Your task to perform on an android device: Turn off the flashlight Image 0: 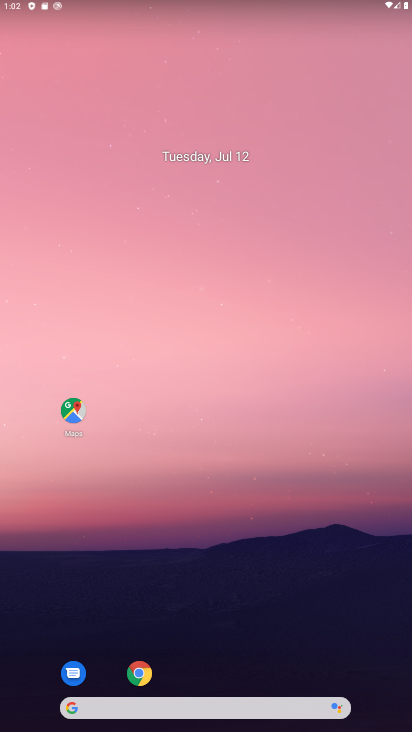
Step 0: drag from (187, 715) to (260, 239)
Your task to perform on an android device: Turn off the flashlight Image 1: 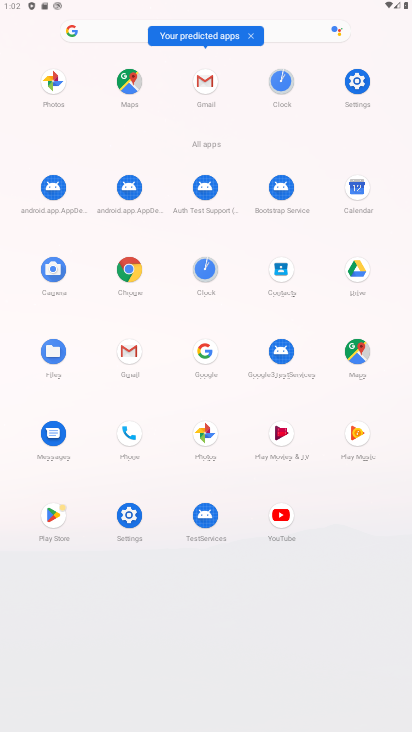
Step 1: click (342, 75)
Your task to perform on an android device: Turn off the flashlight Image 2: 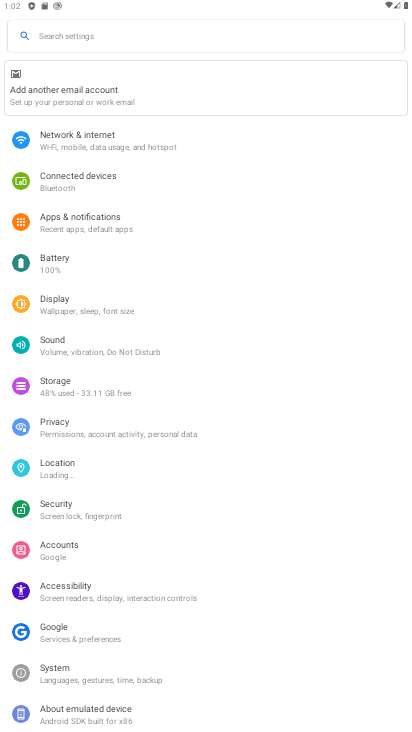
Step 2: task complete